Your task to perform on an android device: turn off javascript in the chrome app Image 0: 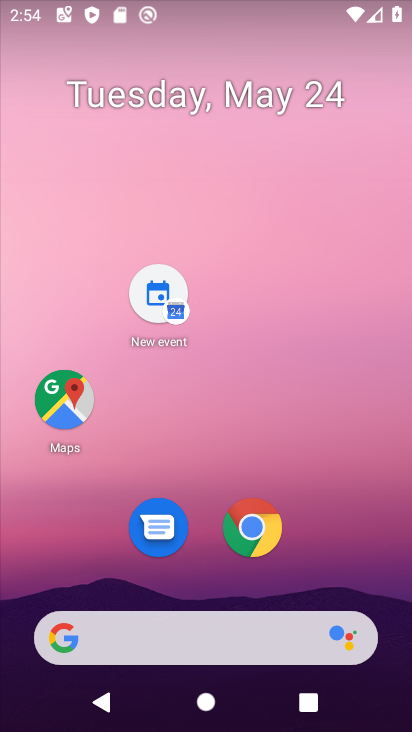
Step 0: drag from (338, 637) to (179, 140)
Your task to perform on an android device: turn off javascript in the chrome app Image 1: 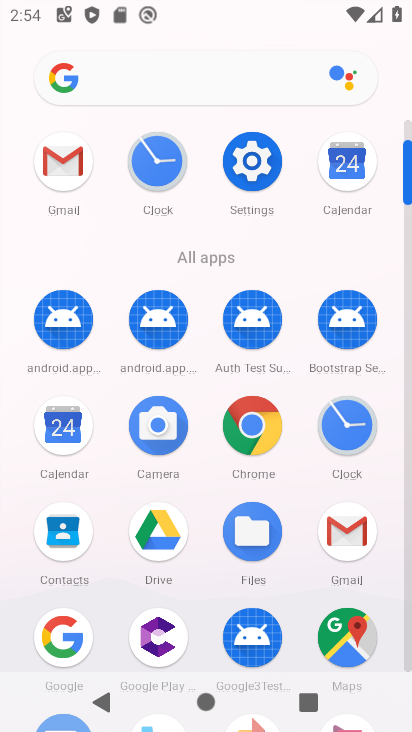
Step 1: click (267, 406)
Your task to perform on an android device: turn off javascript in the chrome app Image 2: 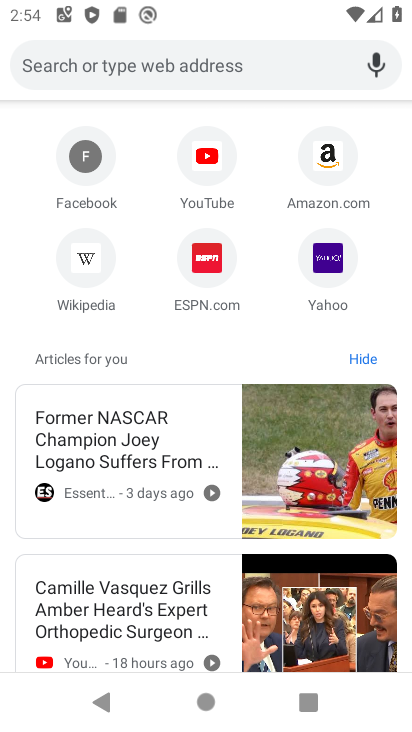
Step 2: drag from (299, 421) to (285, 525)
Your task to perform on an android device: turn off javascript in the chrome app Image 3: 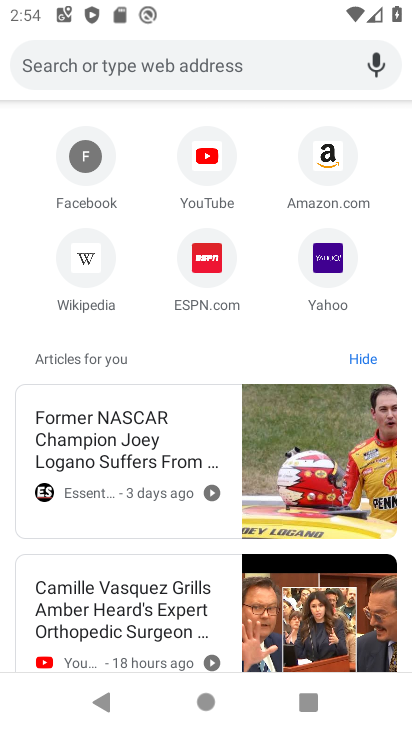
Step 3: drag from (188, 300) to (211, 545)
Your task to perform on an android device: turn off javascript in the chrome app Image 4: 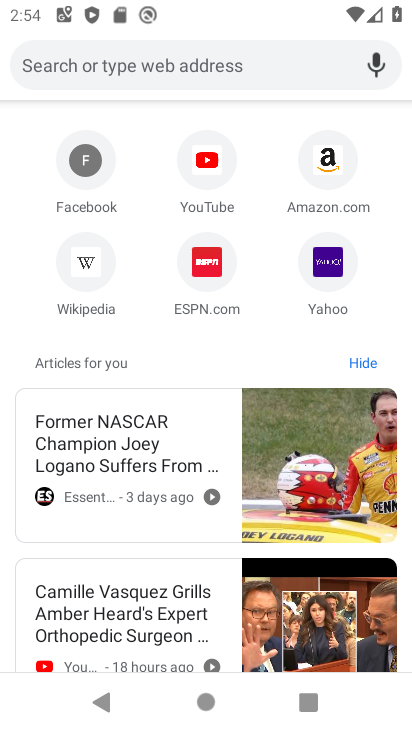
Step 4: drag from (231, 362) to (230, 574)
Your task to perform on an android device: turn off javascript in the chrome app Image 5: 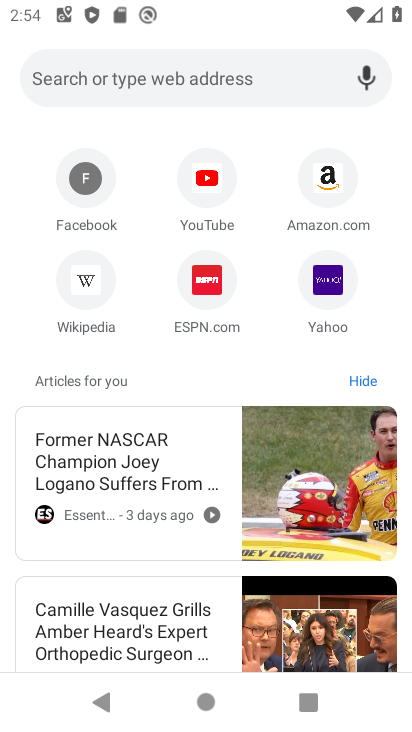
Step 5: drag from (270, 304) to (270, 632)
Your task to perform on an android device: turn off javascript in the chrome app Image 6: 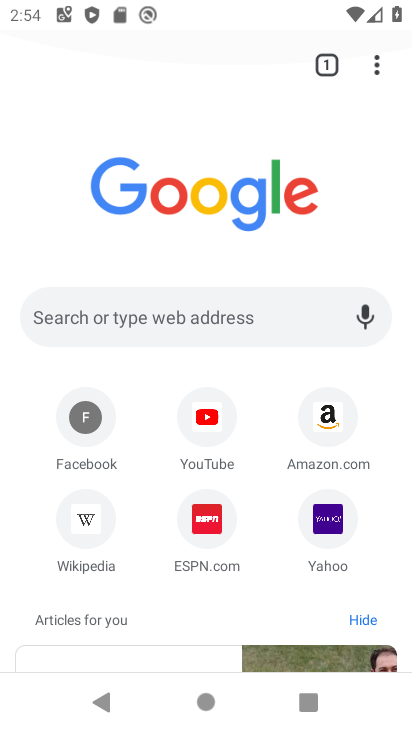
Step 6: drag from (320, 261) to (275, 614)
Your task to perform on an android device: turn off javascript in the chrome app Image 7: 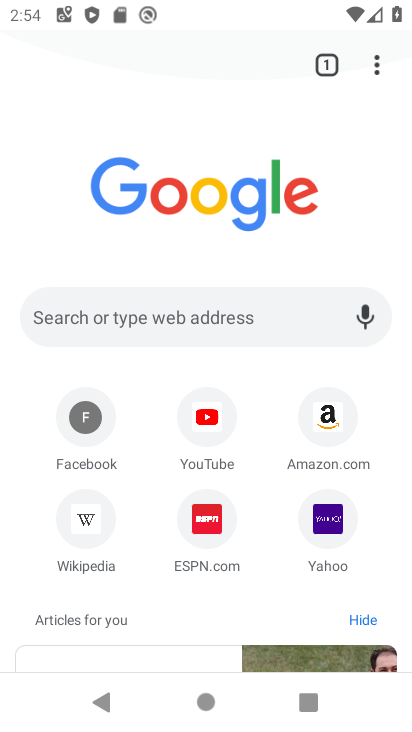
Step 7: click (278, 549)
Your task to perform on an android device: turn off javascript in the chrome app Image 8: 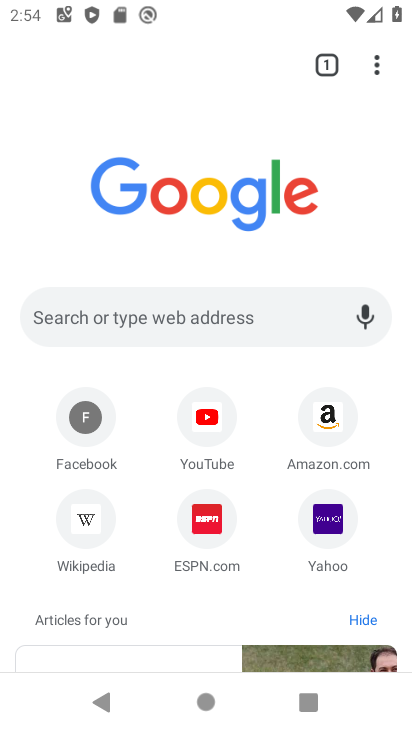
Step 8: click (379, 60)
Your task to perform on an android device: turn off javascript in the chrome app Image 9: 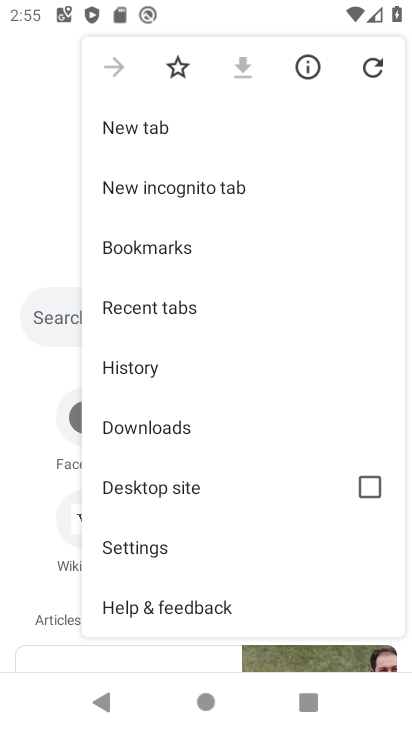
Step 9: click (130, 544)
Your task to perform on an android device: turn off javascript in the chrome app Image 10: 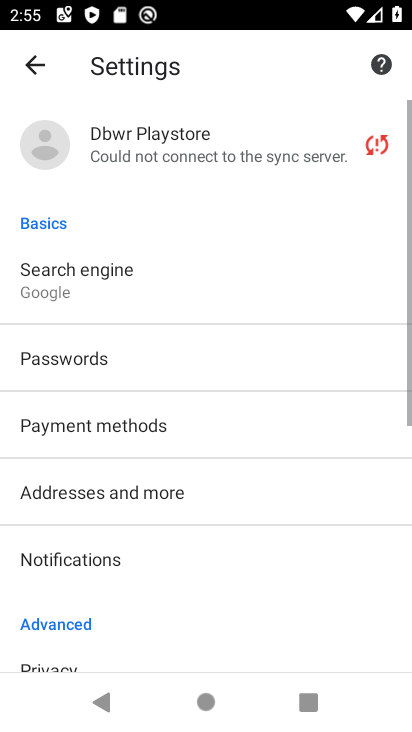
Step 10: click (226, 154)
Your task to perform on an android device: turn off javascript in the chrome app Image 11: 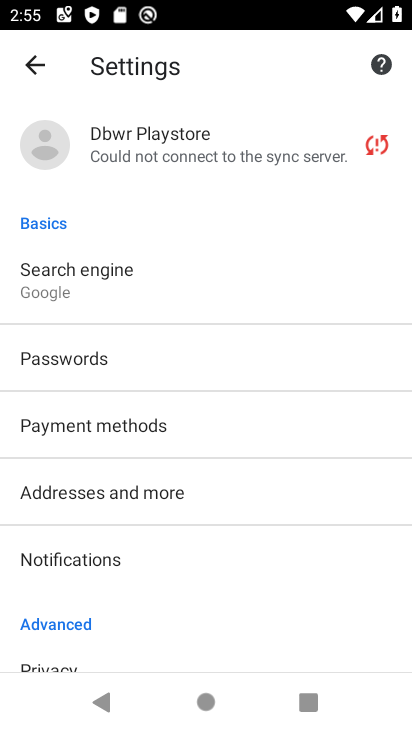
Step 11: task complete